Your task to perform on an android device: Open the web browser Image 0: 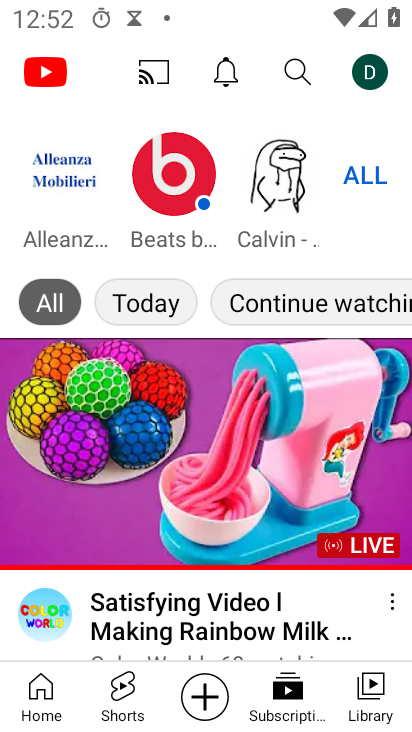
Step 0: press home button
Your task to perform on an android device: Open the web browser Image 1: 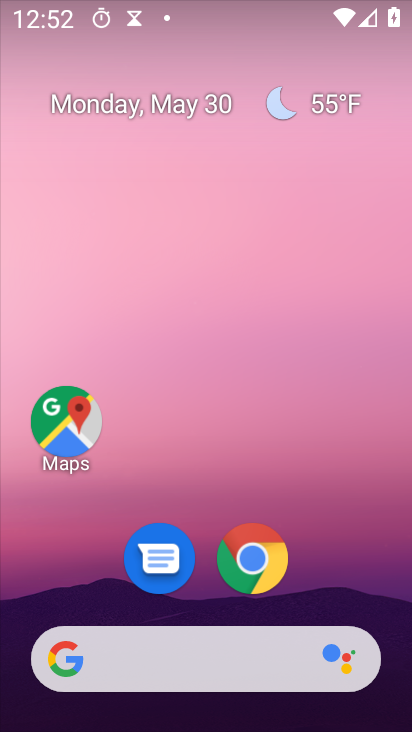
Step 1: drag from (320, 539) to (257, 7)
Your task to perform on an android device: Open the web browser Image 2: 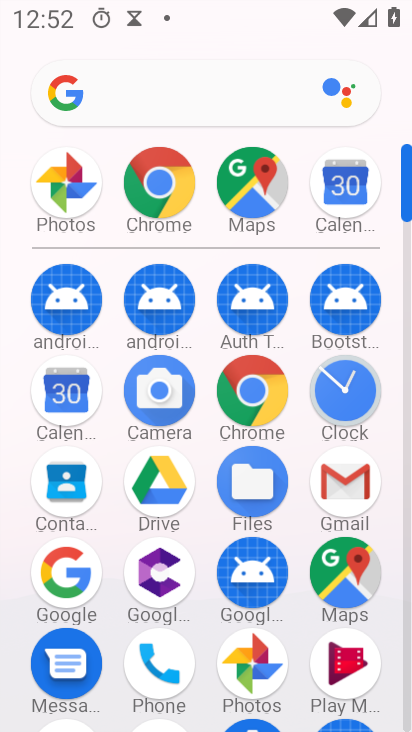
Step 2: click (150, 176)
Your task to perform on an android device: Open the web browser Image 3: 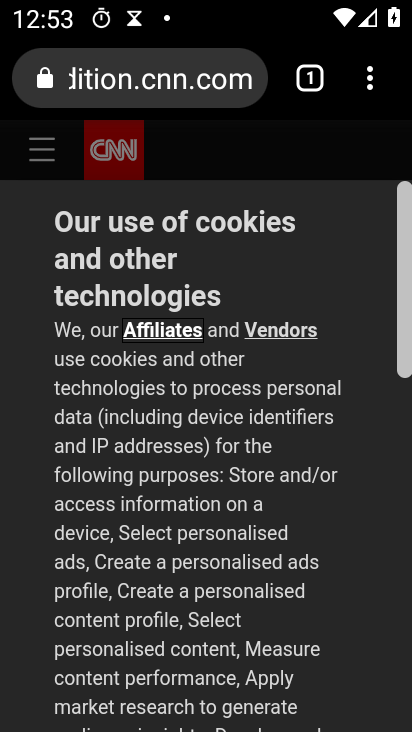
Step 3: task complete